Your task to perform on an android device: turn on data saver in the chrome app Image 0: 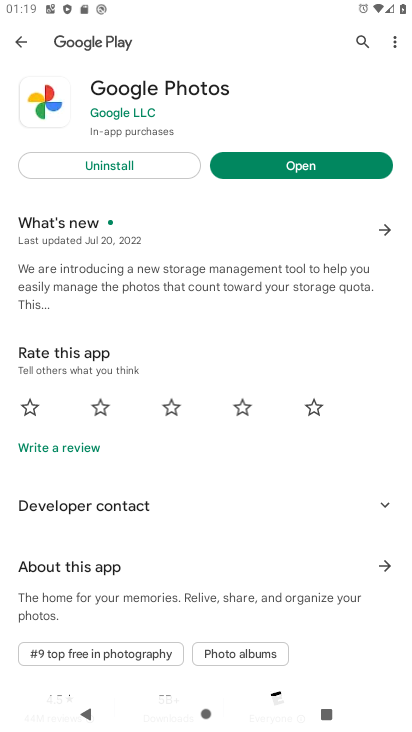
Step 0: press home button
Your task to perform on an android device: turn on data saver in the chrome app Image 1: 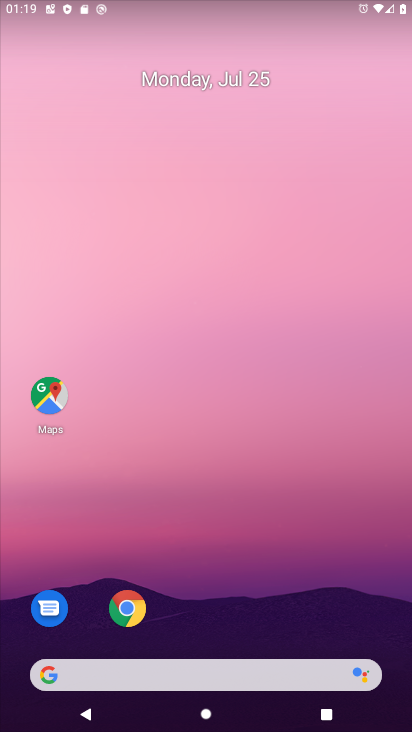
Step 1: drag from (215, 668) to (223, 25)
Your task to perform on an android device: turn on data saver in the chrome app Image 2: 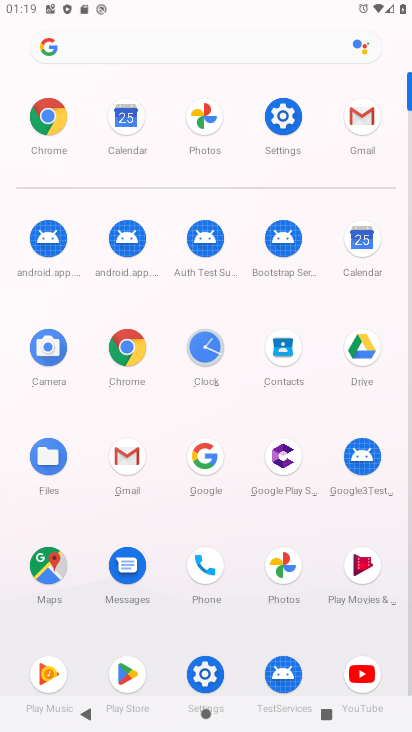
Step 2: click (129, 339)
Your task to perform on an android device: turn on data saver in the chrome app Image 3: 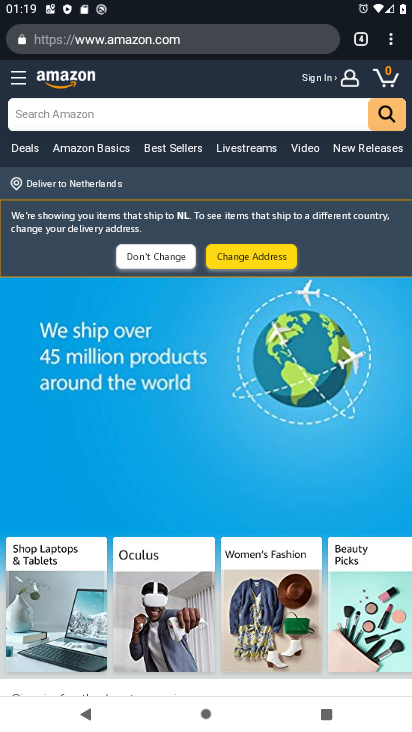
Step 3: click (385, 41)
Your task to perform on an android device: turn on data saver in the chrome app Image 4: 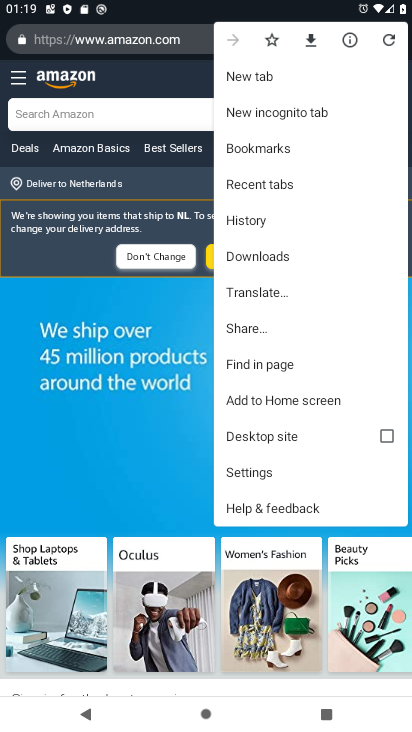
Step 4: click (262, 481)
Your task to perform on an android device: turn on data saver in the chrome app Image 5: 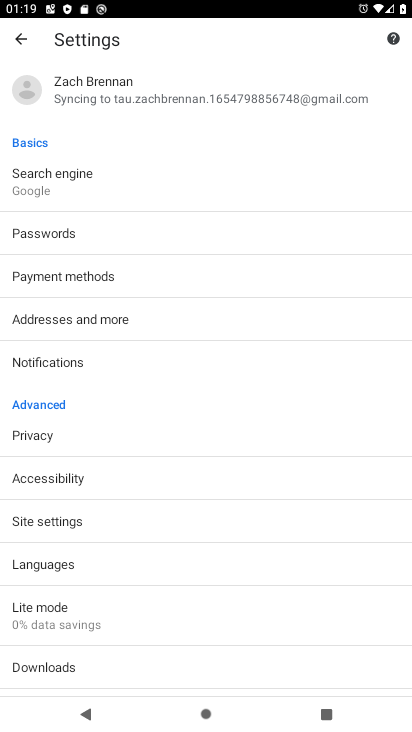
Step 5: click (43, 620)
Your task to perform on an android device: turn on data saver in the chrome app Image 6: 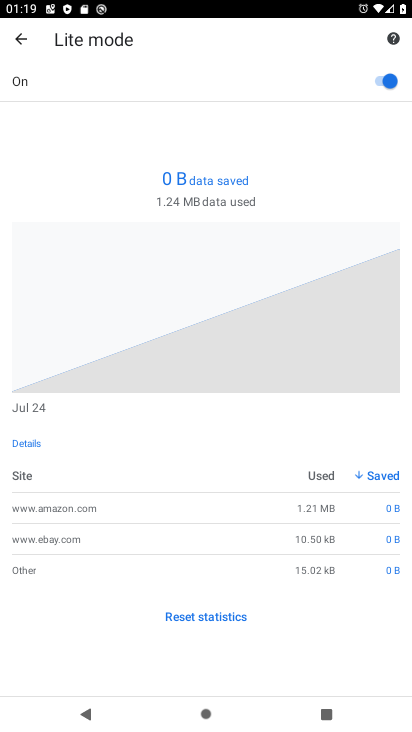
Step 6: task complete